Your task to perform on an android device: check battery use Image 0: 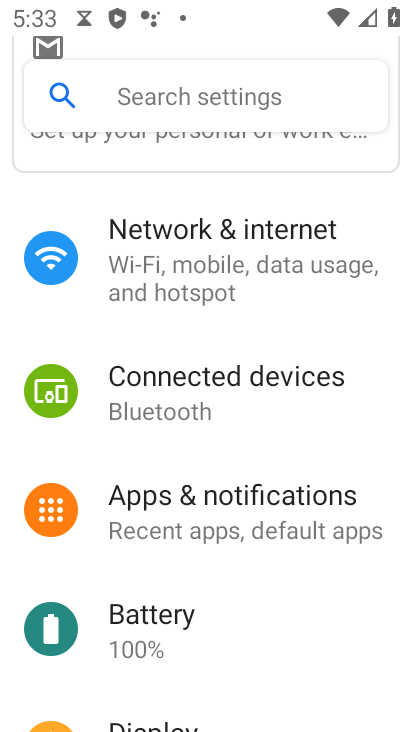
Step 0: drag from (205, 486) to (177, 176)
Your task to perform on an android device: check battery use Image 1: 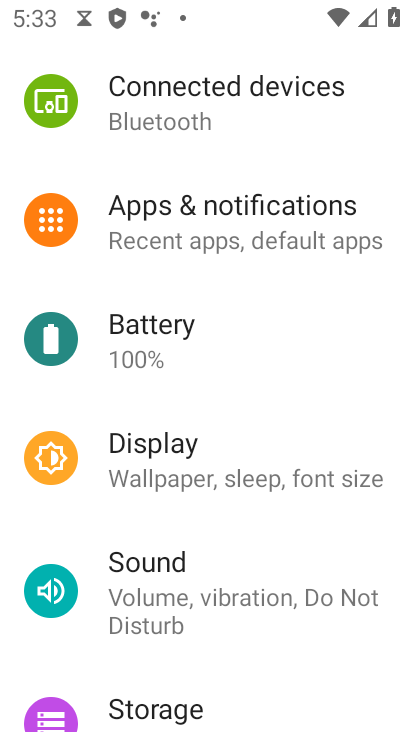
Step 1: click (147, 352)
Your task to perform on an android device: check battery use Image 2: 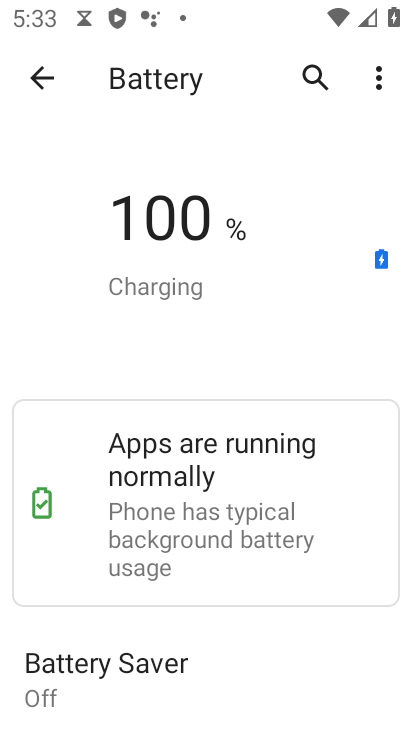
Step 2: task complete